Your task to perform on an android device: toggle show notifications on the lock screen Image 0: 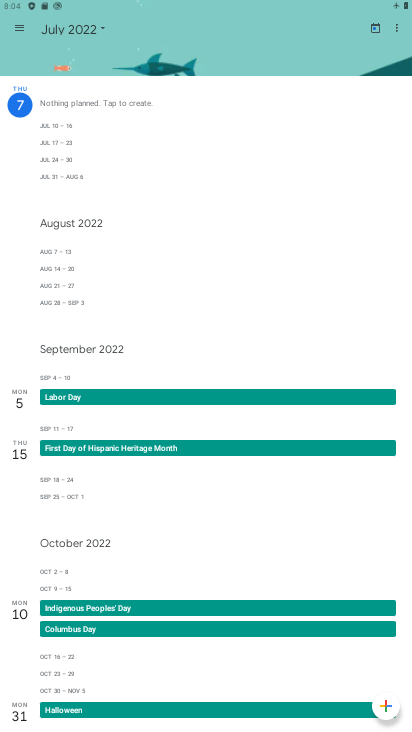
Step 0: press home button
Your task to perform on an android device: toggle show notifications on the lock screen Image 1: 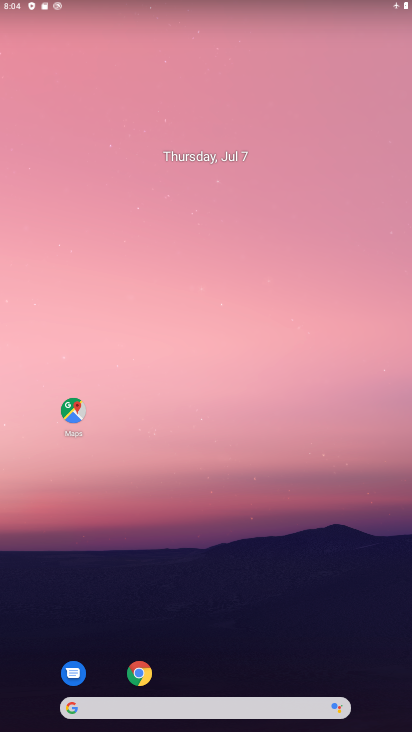
Step 1: drag from (226, 693) to (152, 6)
Your task to perform on an android device: toggle show notifications on the lock screen Image 2: 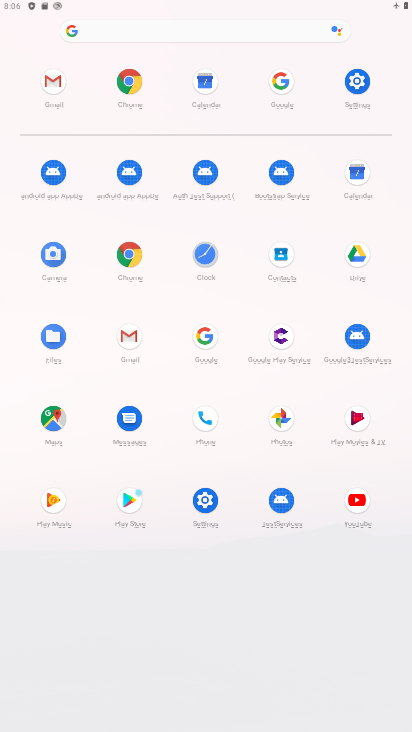
Step 2: click (192, 494)
Your task to perform on an android device: toggle show notifications on the lock screen Image 3: 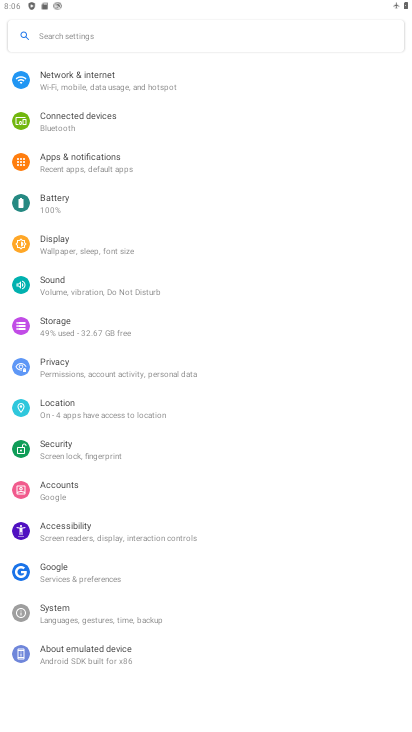
Step 3: click (80, 169)
Your task to perform on an android device: toggle show notifications on the lock screen Image 4: 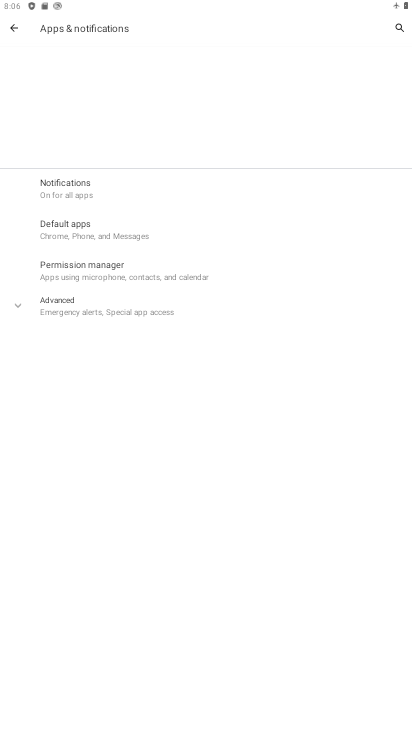
Step 4: click (61, 182)
Your task to perform on an android device: toggle show notifications on the lock screen Image 5: 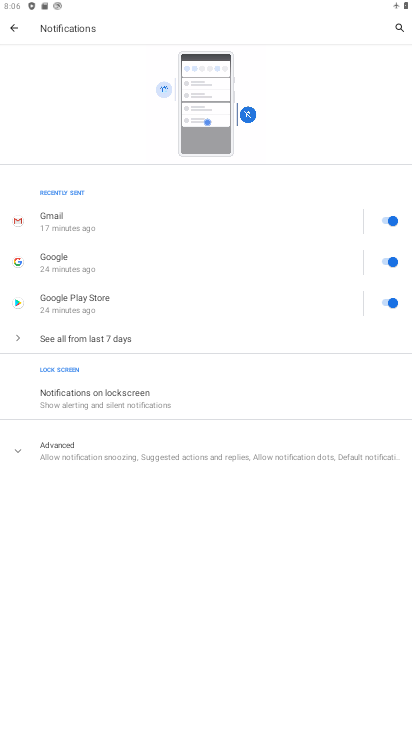
Step 5: click (123, 405)
Your task to perform on an android device: toggle show notifications on the lock screen Image 6: 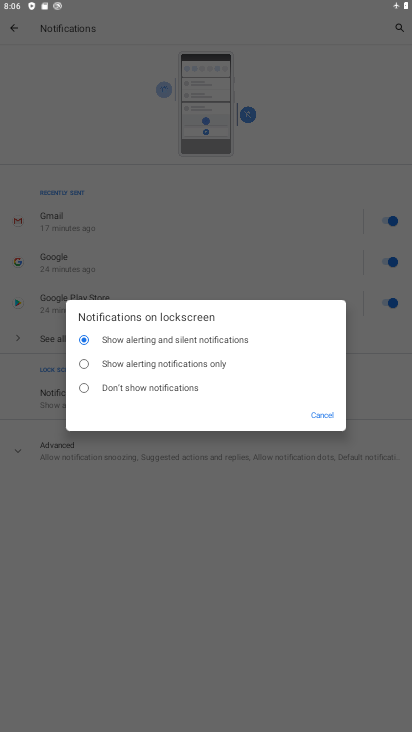
Step 6: click (128, 366)
Your task to perform on an android device: toggle show notifications on the lock screen Image 7: 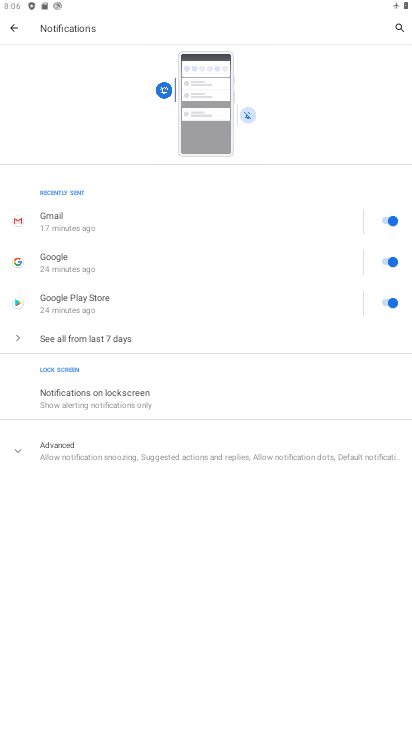
Step 7: task complete